Your task to perform on an android device: set default search engine in the chrome app Image 0: 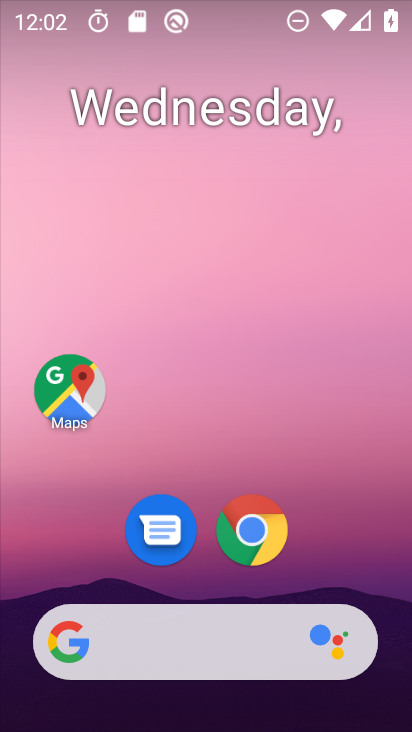
Step 0: drag from (267, 578) to (267, 143)
Your task to perform on an android device: set default search engine in the chrome app Image 1: 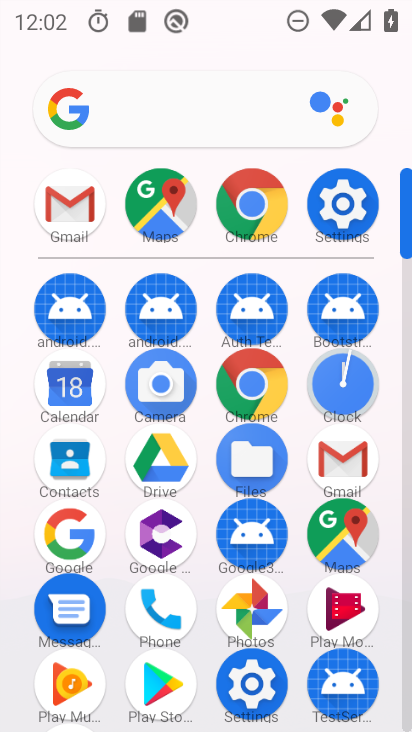
Step 1: click (253, 398)
Your task to perform on an android device: set default search engine in the chrome app Image 2: 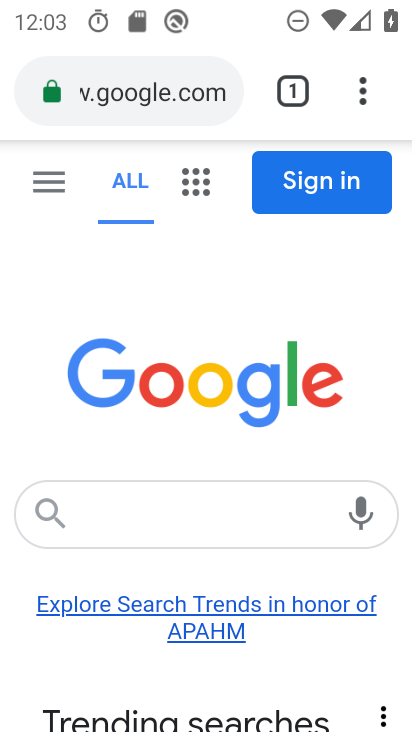
Step 2: click (367, 84)
Your task to perform on an android device: set default search engine in the chrome app Image 3: 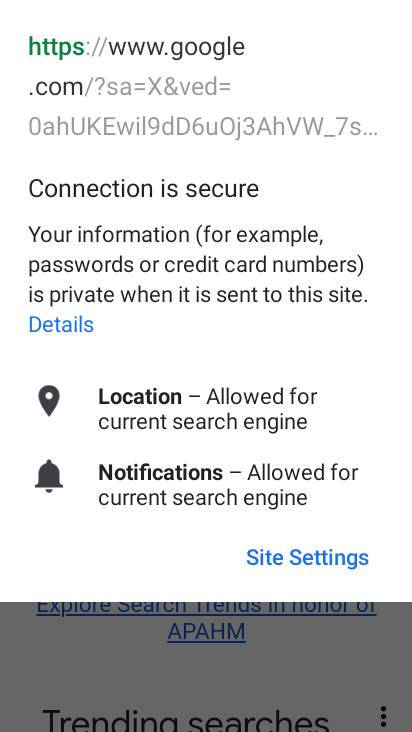
Step 3: press back button
Your task to perform on an android device: set default search engine in the chrome app Image 4: 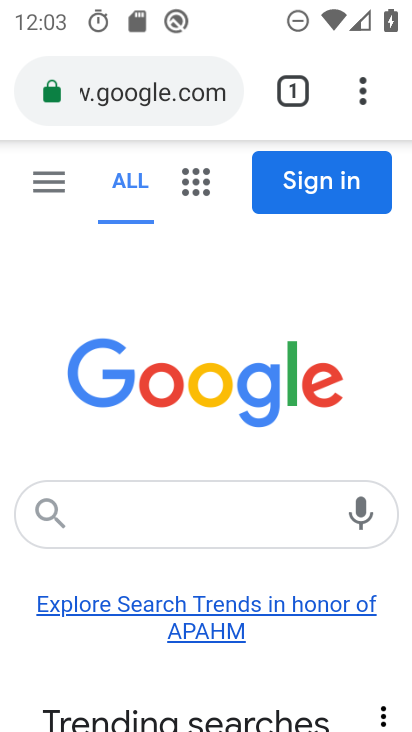
Step 4: drag from (369, 85) to (200, 552)
Your task to perform on an android device: set default search engine in the chrome app Image 5: 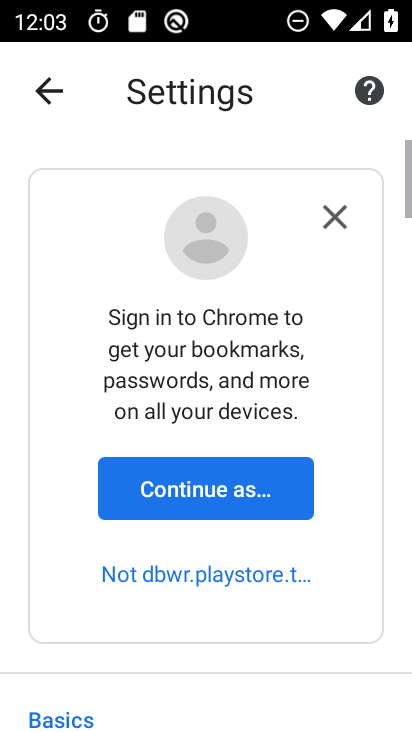
Step 5: drag from (221, 681) to (245, 126)
Your task to perform on an android device: set default search engine in the chrome app Image 6: 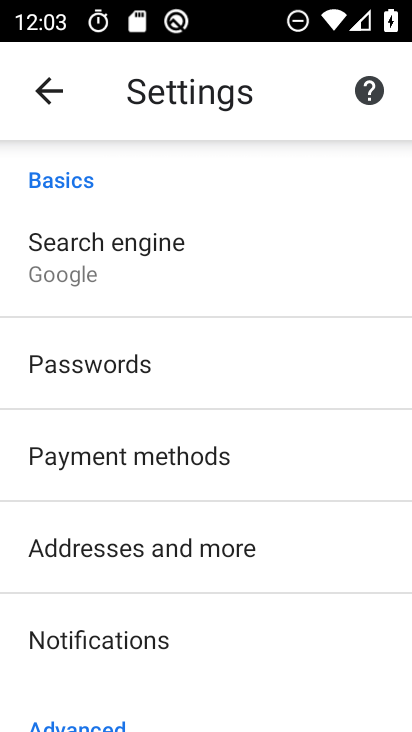
Step 6: click (95, 286)
Your task to perform on an android device: set default search engine in the chrome app Image 7: 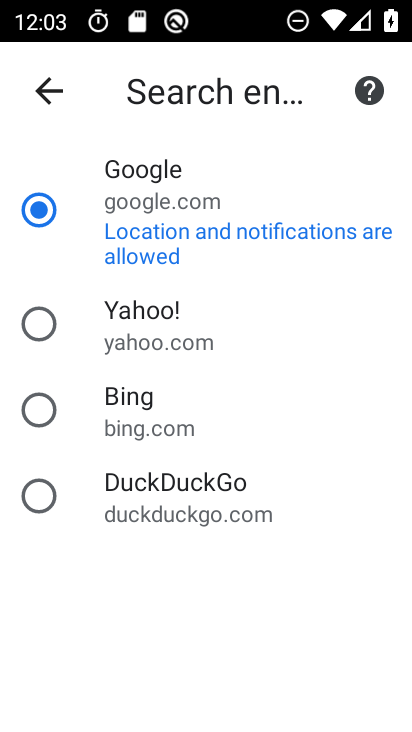
Step 7: task complete